Your task to perform on an android device: check battery use Image 0: 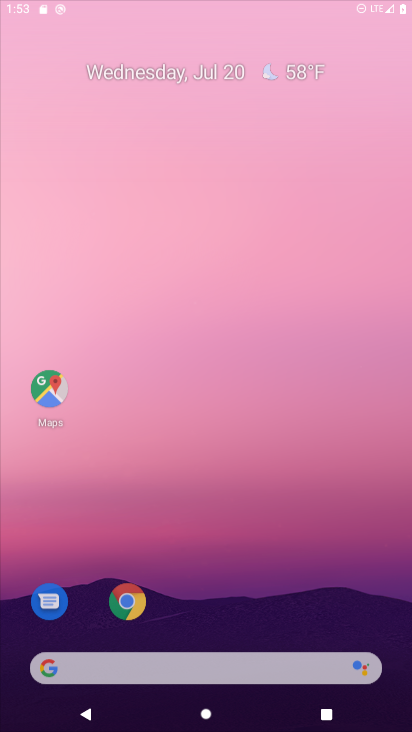
Step 0: drag from (245, 717) to (243, 386)
Your task to perform on an android device: check battery use Image 1: 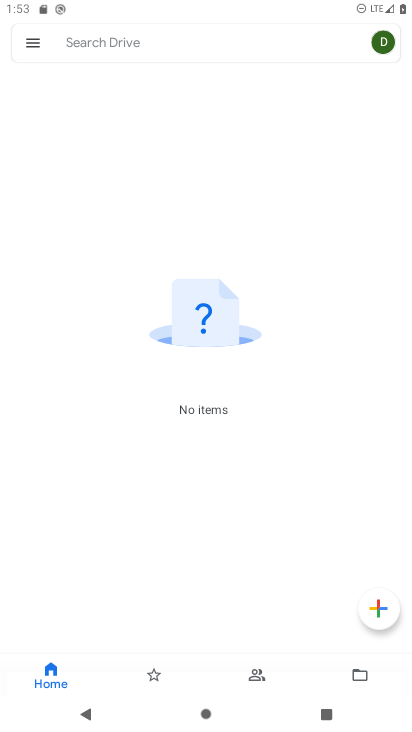
Step 1: press home button
Your task to perform on an android device: check battery use Image 2: 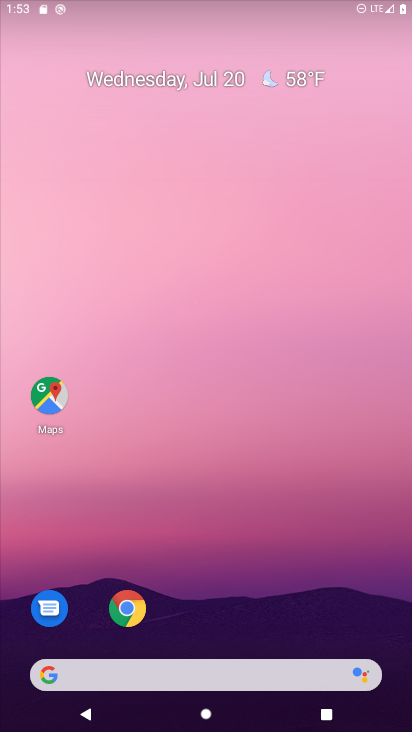
Step 2: drag from (239, 722) to (212, 252)
Your task to perform on an android device: check battery use Image 3: 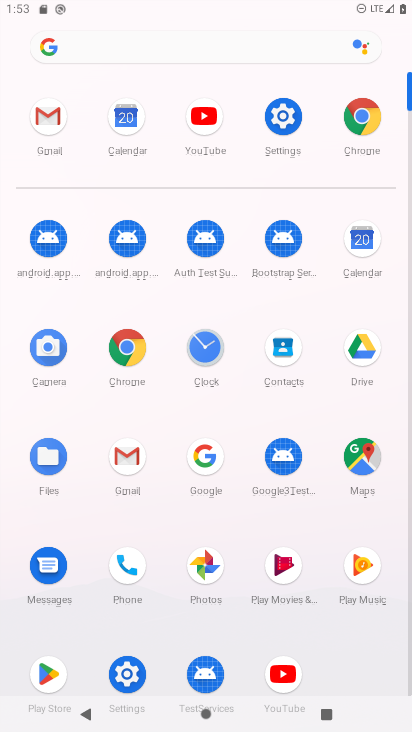
Step 3: click (278, 118)
Your task to perform on an android device: check battery use Image 4: 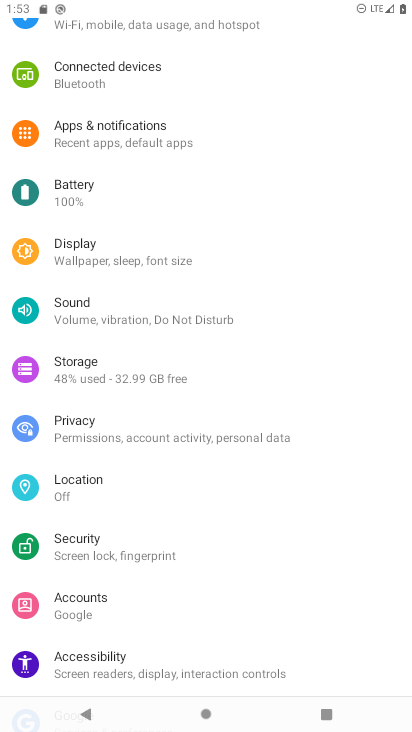
Step 4: click (60, 188)
Your task to perform on an android device: check battery use Image 5: 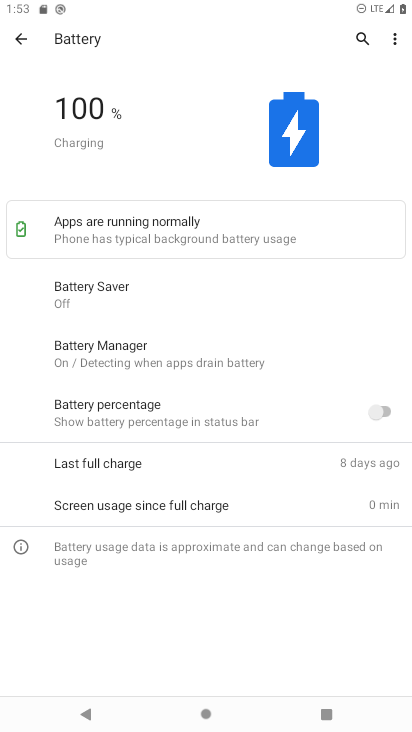
Step 5: click (394, 39)
Your task to perform on an android device: check battery use Image 6: 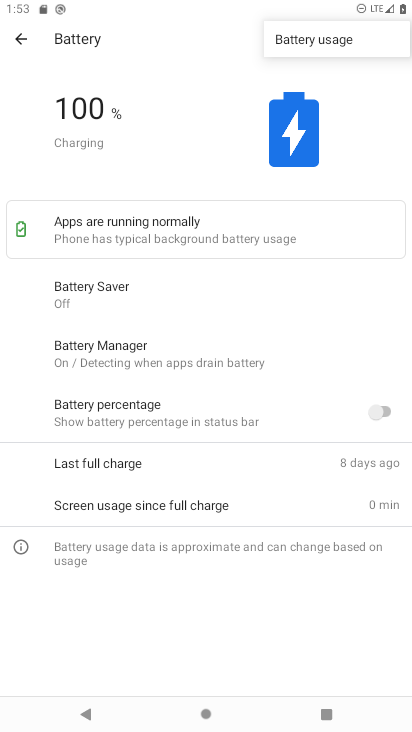
Step 6: click (323, 36)
Your task to perform on an android device: check battery use Image 7: 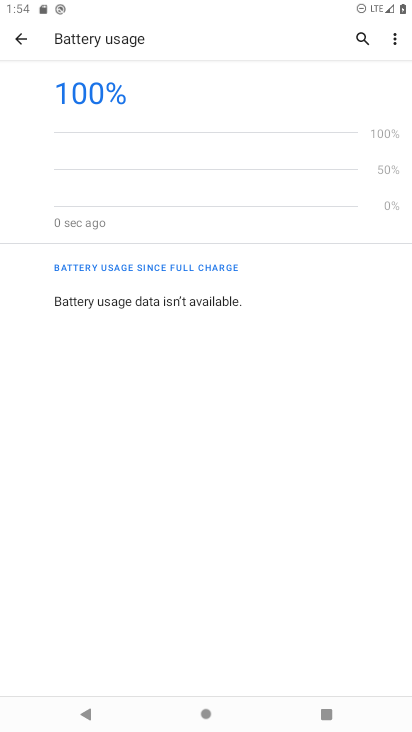
Step 7: task complete